Your task to perform on an android device: delete browsing data in the chrome app Image 0: 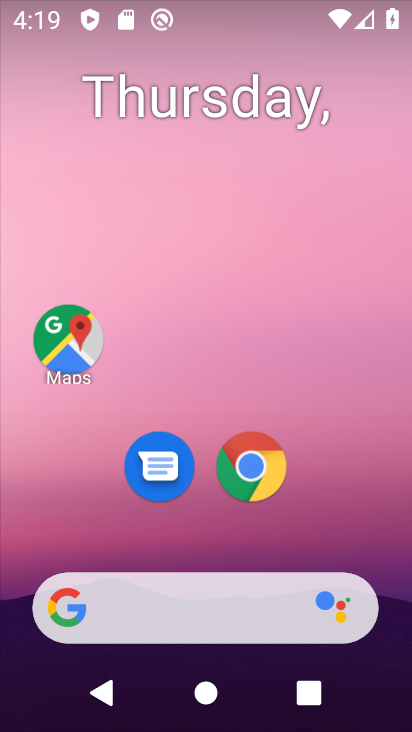
Step 0: click (250, 460)
Your task to perform on an android device: delete browsing data in the chrome app Image 1: 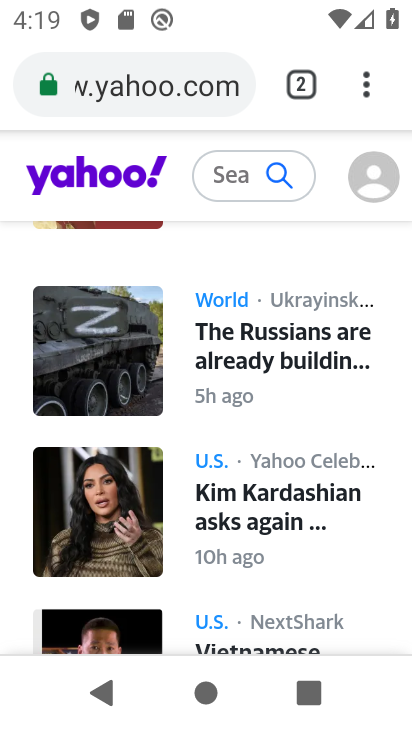
Step 1: click (361, 84)
Your task to perform on an android device: delete browsing data in the chrome app Image 2: 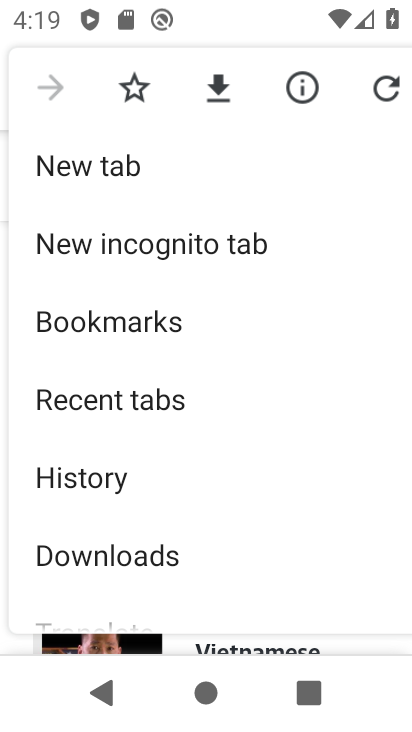
Step 2: click (136, 471)
Your task to perform on an android device: delete browsing data in the chrome app Image 3: 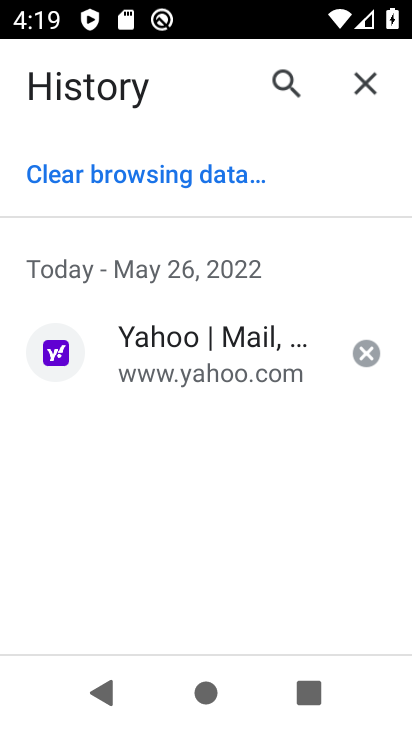
Step 3: click (144, 170)
Your task to perform on an android device: delete browsing data in the chrome app Image 4: 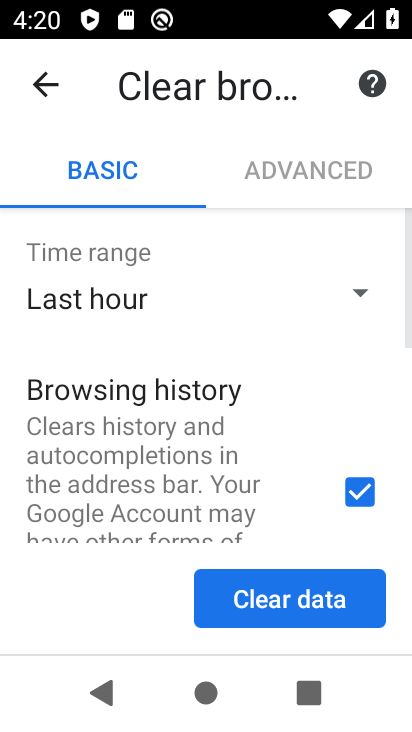
Step 4: drag from (287, 490) to (286, 196)
Your task to perform on an android device: delete browsing data in the chrome app Image 5: 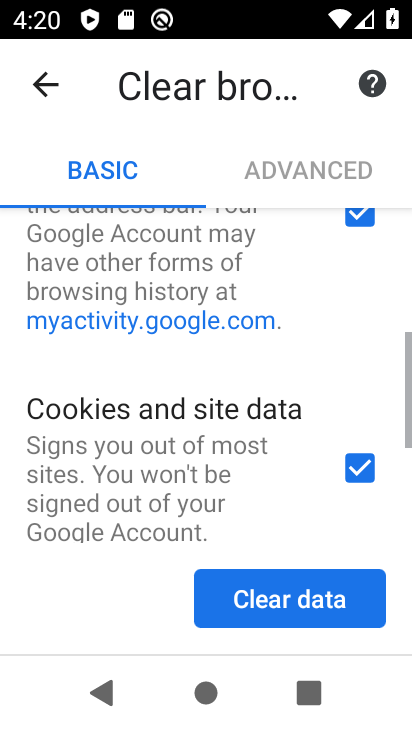
Step 5: drag from (275, 292) to (300, 633)
Your task to perform on an android device: delete browsing data in the chrome app Image 6: 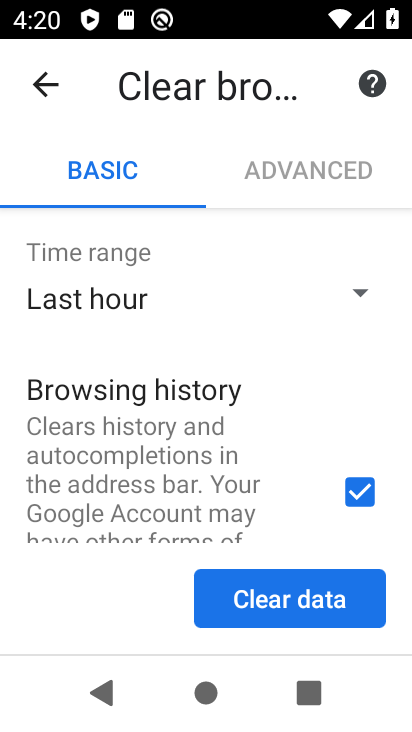
Step 6: click (362, 291)
Your task to perform on an android device: delete browsing data in the chrome app Image 7: 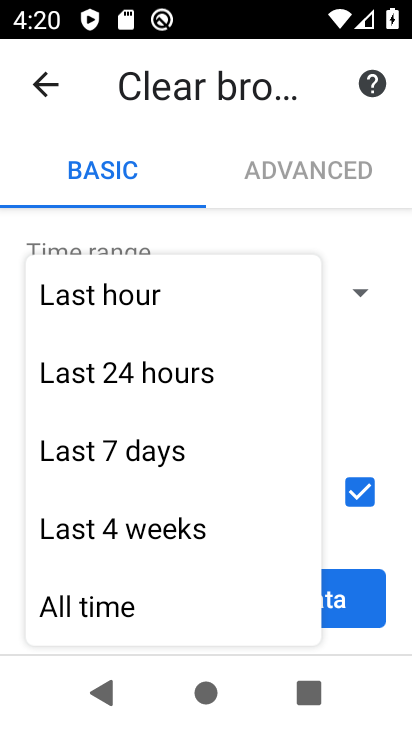
Step 7: click (142, 603)
Your task to perform on an android device: delete browsing data in the chrome app Image 8: 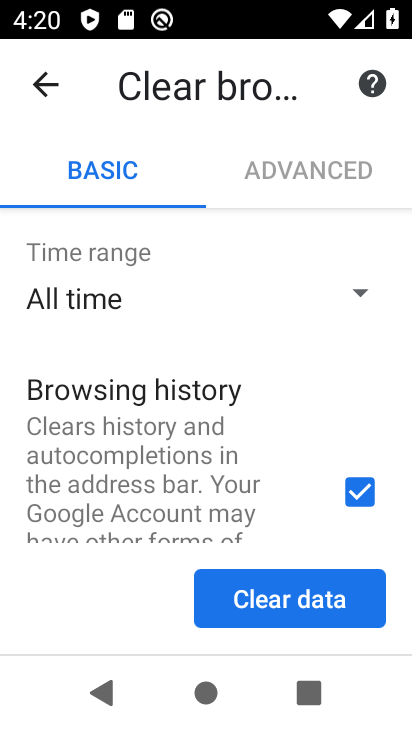
Step 8: drag from (263, 523) to (291, 177)
Your task to perform on an android device: delete browsing data in the chrome app Image 9: 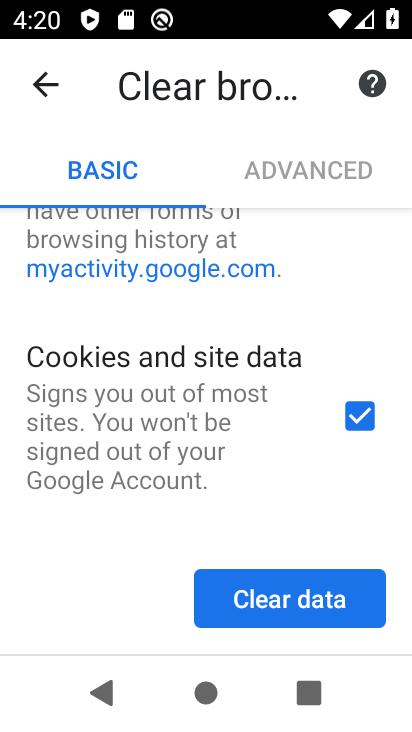
Step 9: drag from (277, 439) to (297, 341)
Your task to perform on an android device: delete browsing data in the chrome app Image 10: 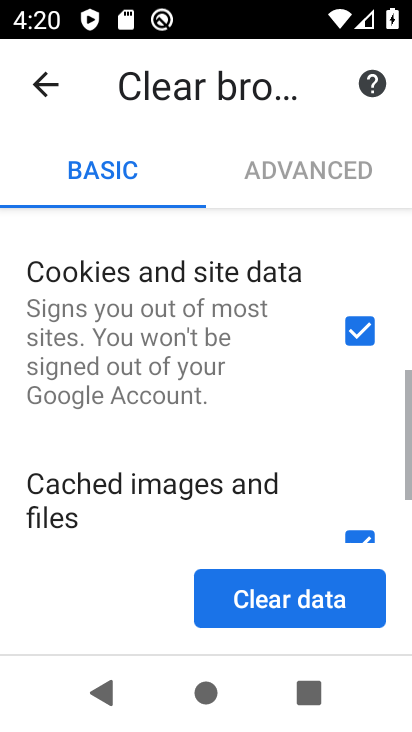
Step 10: drag from (310, 247) to (319, 191)
Your task to perform on an android device: delete browsing data in the chrome app Image 11: 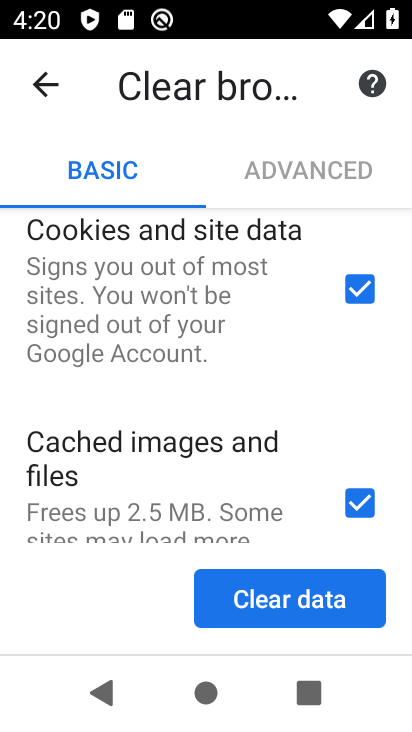
Step 11: click (299, 597)
Your task to perform on an android device: delete browsing data in the chrome app Image 12: 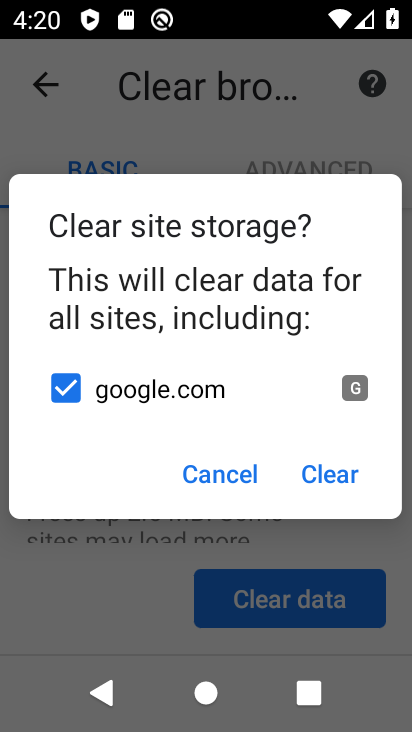
Step 12: click (331, 465)
Your task to perform on an android device: delete browsing data in the chrome app Image 13: 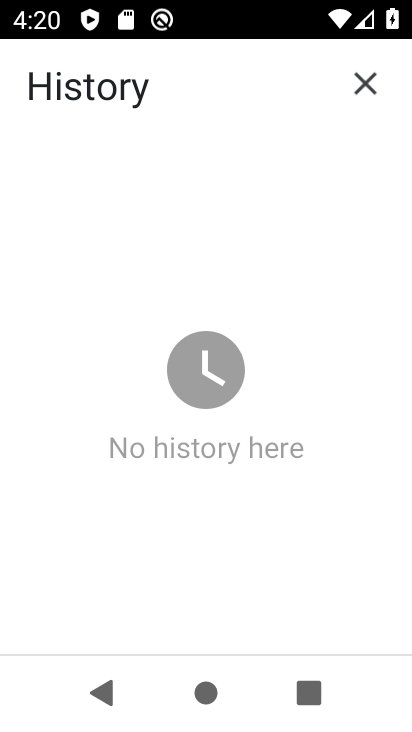
Step 13: click (358, 94)
Your task to perform on an android device: delete browsing data in the chrome app Image 14: 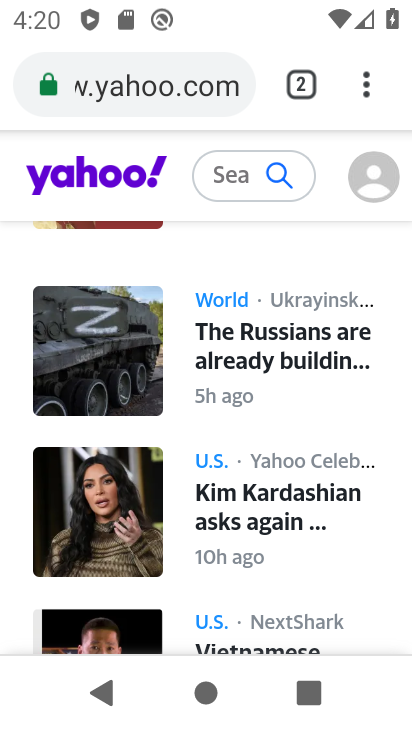
Step 14: task complete